Your task to perform on an android device: Find coffee shops on Maps Image 0: 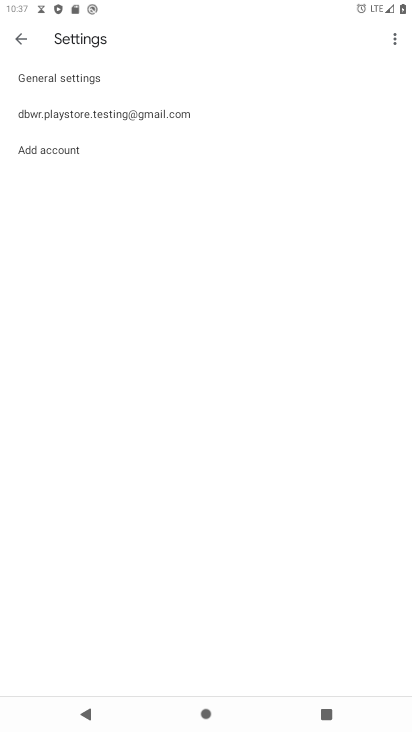
Step 0: press home button
Your task to perform on an android device: Find coffee shops on Maps Image 1: 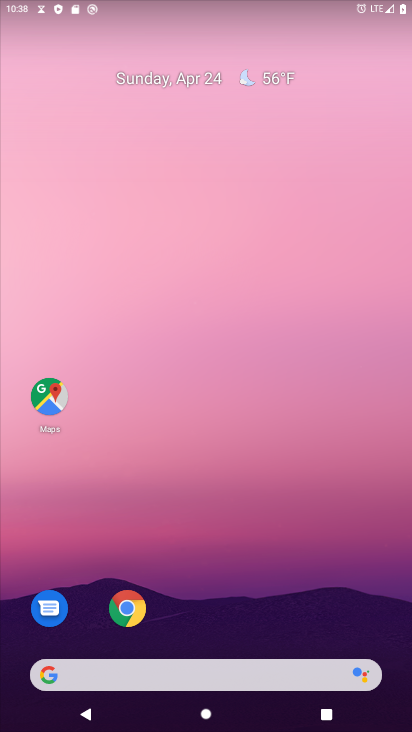
Step 1: drag from (226, 656) to (189, 35)
Your task to perform on an android device: Find coffee shops on Maps Image 2: 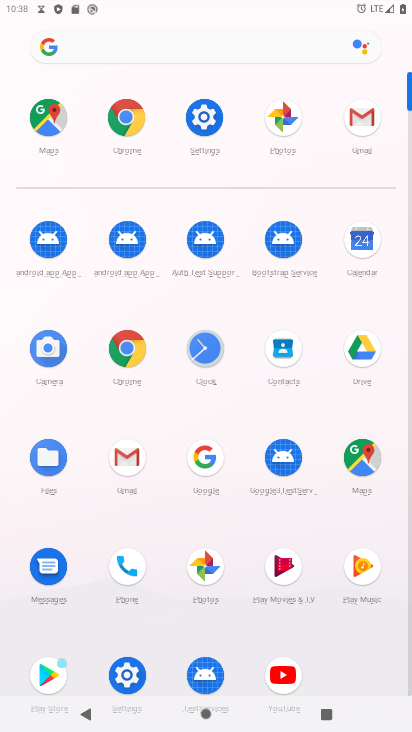
Step 2: click (359, 472)
Your task to perform on an android device: Find coffee shops on Maps Image 3: 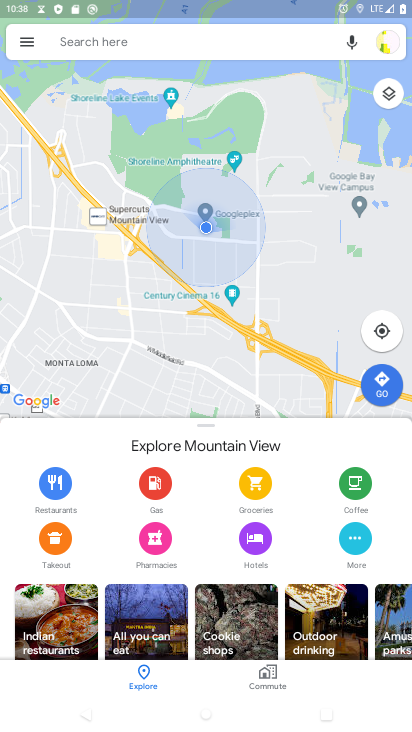
Step 3: click (177, 39)
Your task to perform on an android device: Find coffee shops on Maps Image 4: 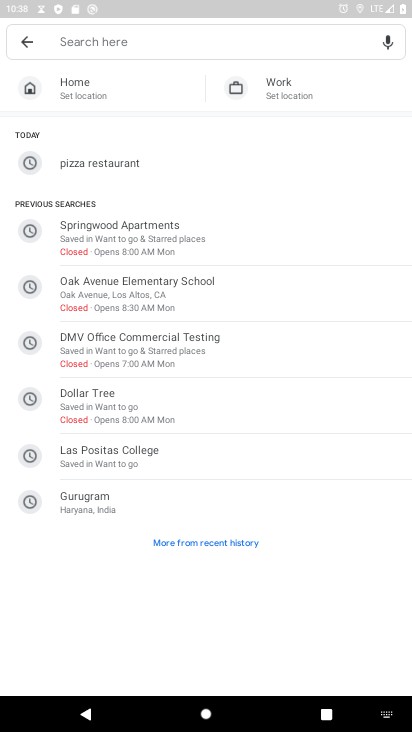
Step 4: type "coffee shop"
Your task to perform on an android device: Find coffee shops on Maps Image 5: 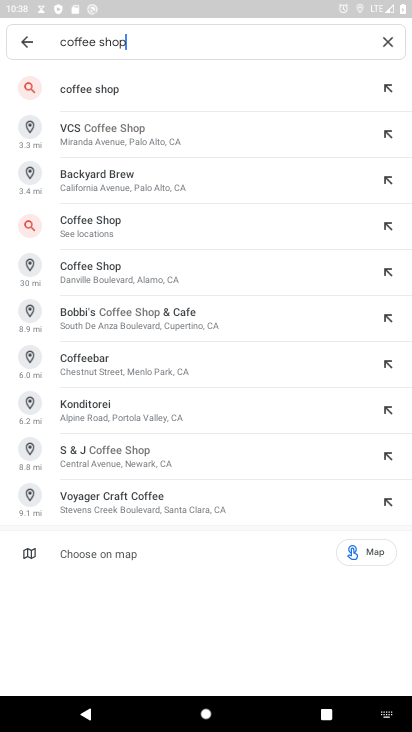
Step 5: click (64, 85)
Your task to perform on an android device: Find coffee shops on Maps Image 6: 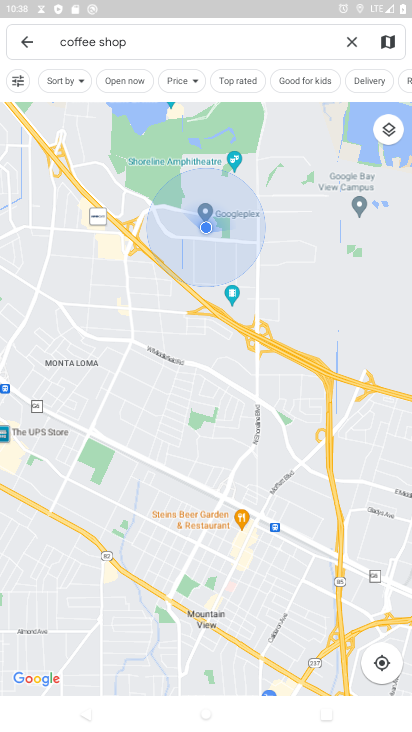
Step 6: task complete